Your task to perform on an android device: change notification settings in the gmail app Image 0: 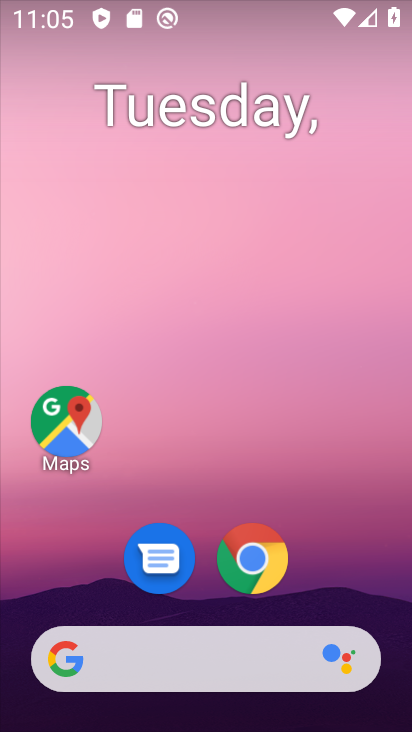
Step 0: drag from (359, 580) to (338, 82)
Your task to perform on an android device: change notification settings in the gmail app Image 1: 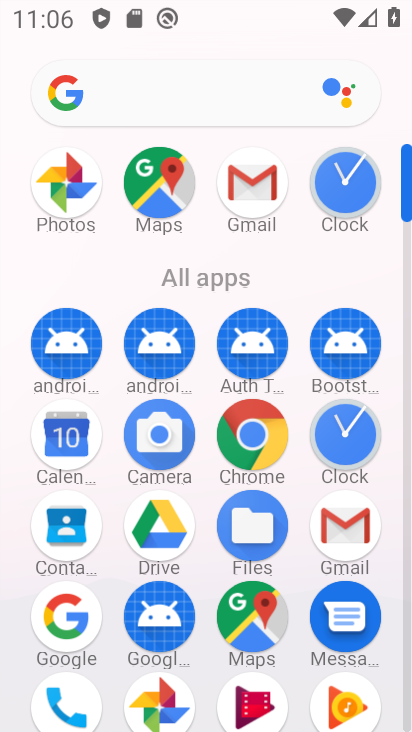
Step 1: click (410, 713)
Your task to perform on an android device: change notification settings in the gmail app Image 2: 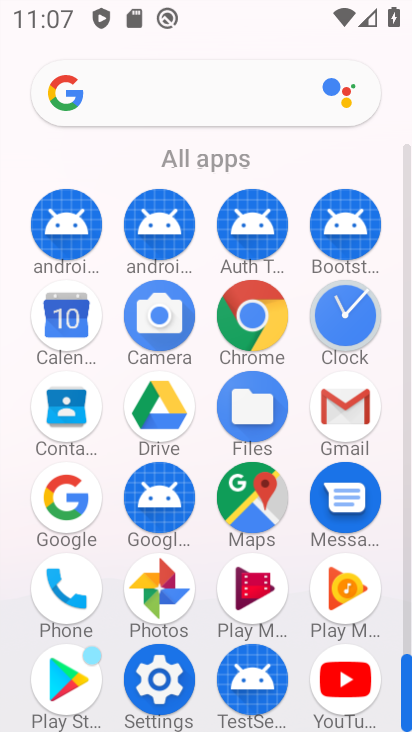
Step 2: click (166, 677)
Your task to perform on an android device: change notification settings in the gmail app Image 3: 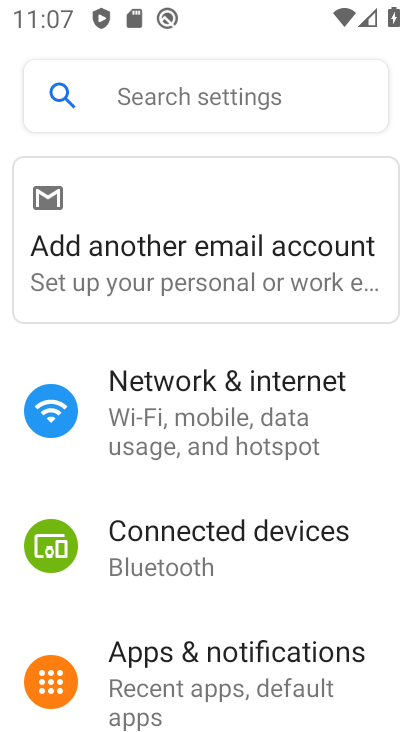
Step 3: drag from (208, 540) to (233, 266)
Your task to perform on an android device: change notification settings in the gmail app Image 4: 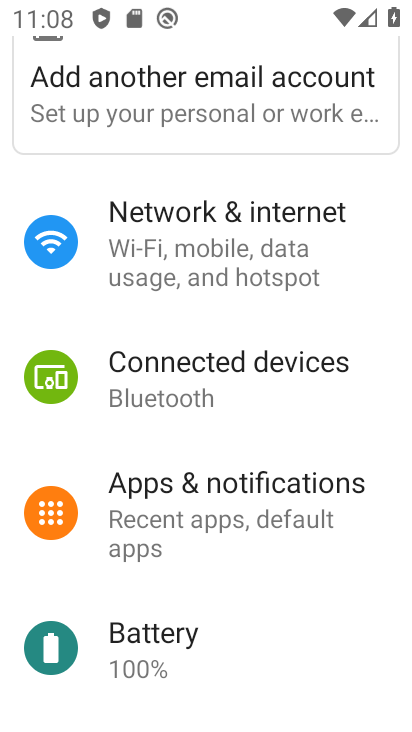
Step 4: click (186, 459)
Your task to perform on an android device: change notification settings in the gmail app Image 5: 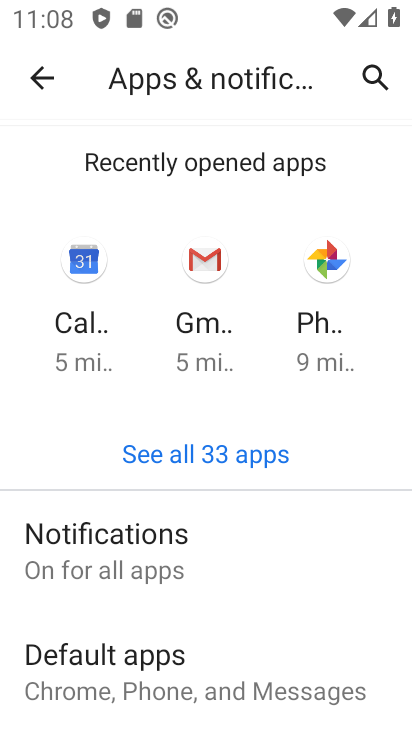
Step 5: press home button
Your task to perform on an android device: change notification settings in the gmail app Image 6: 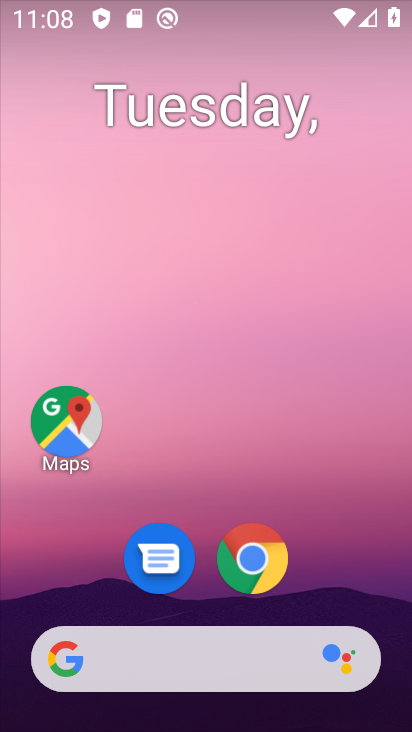
Step 6: drag from (321, 216) to (332, 37)
Your task to perform on an android device: change notification settings in the gmail app Image 7: 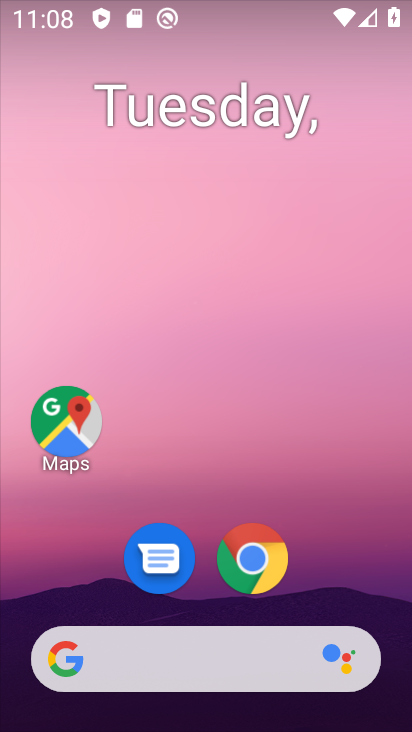
Step 7: drag from (372, 498) to (380, 95)
Your task to perform on an android device: change notification settings in the gmail app Image 8: 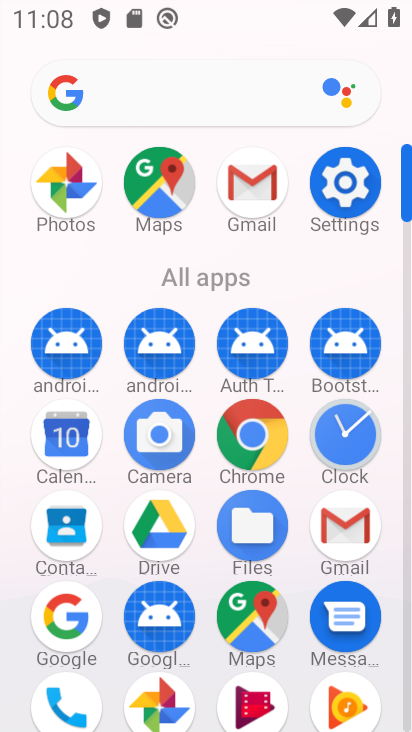
Step 8: click (351, 501)
Your task to perform on an android device: change notification settings in the gmail app Image 9: 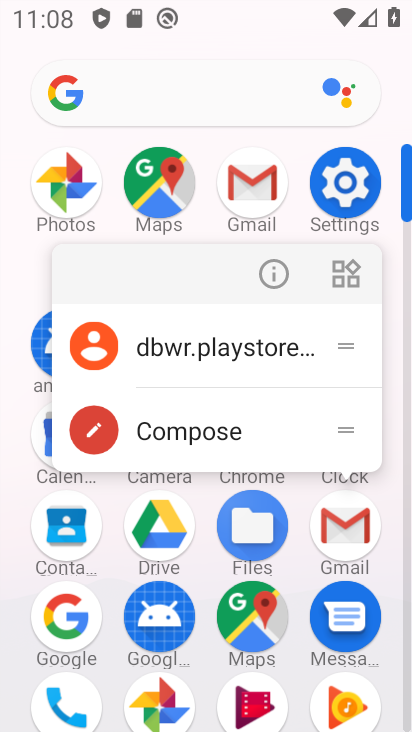
Step 9: click (281, 271)
Your task to perform on an android device: change notification settings in the gmail app Image 10: 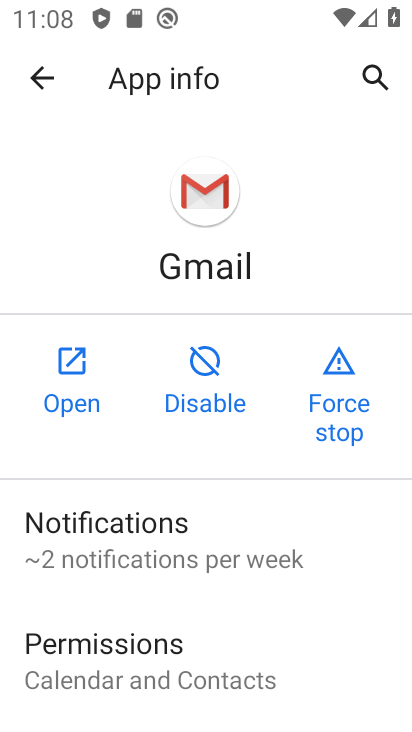
Step 10: click (183, 568)
Your task to perform on an android device: change notification settings in the gmail app Image 11: 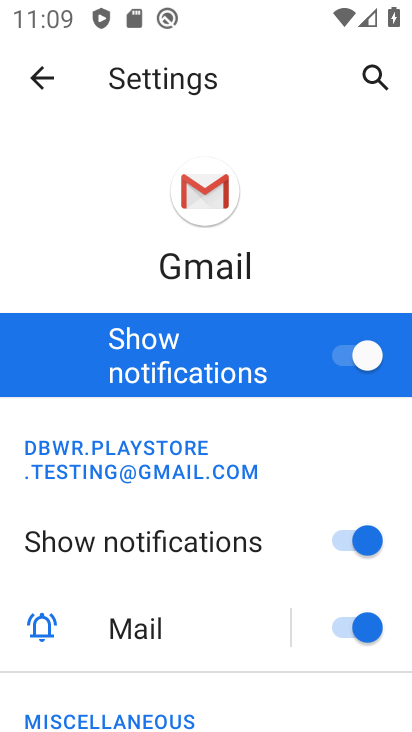
Step 11: click (333, 355)
Your task to perform on an android device: change notification settings in the gmail app Image 12: 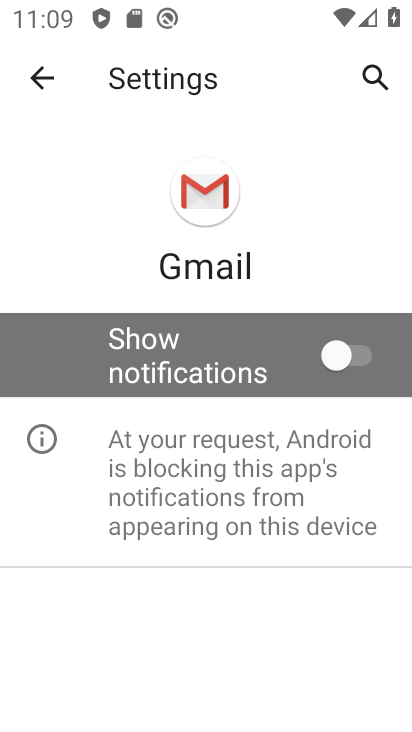
Step 12: task complete